Your task to perform on an android device: Search for pizza restaurants on Maps Image 0: 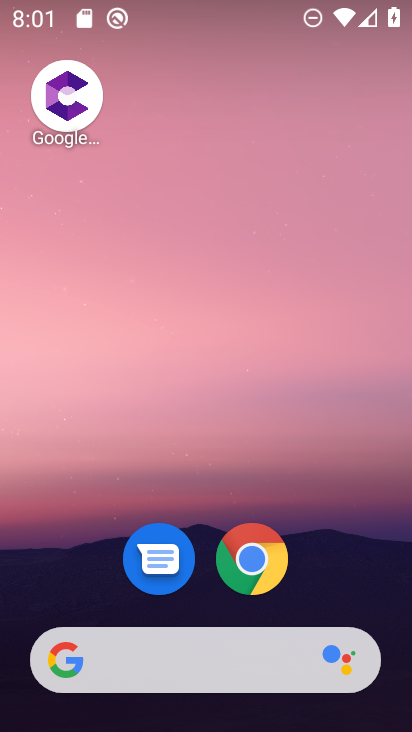
Step 0: drag from (88, 468) to (140, 10)
Your task to perform on an android device: Search for pizza restaurants on Maps Image 1: 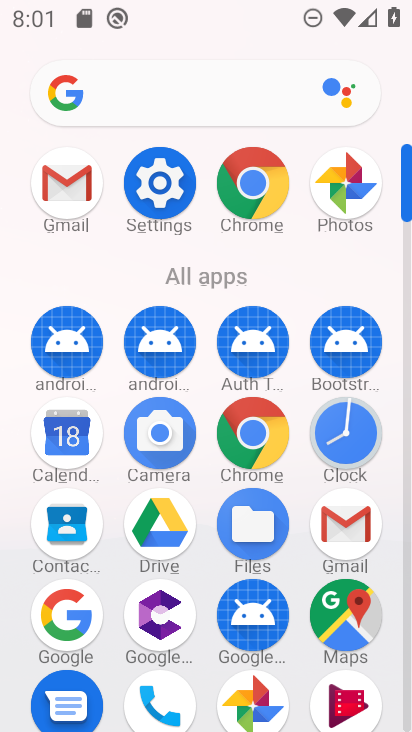
Step 1: click (334, 624)
Your task to perform on an android device: Search for pizza restaurants on Maps Image 2: 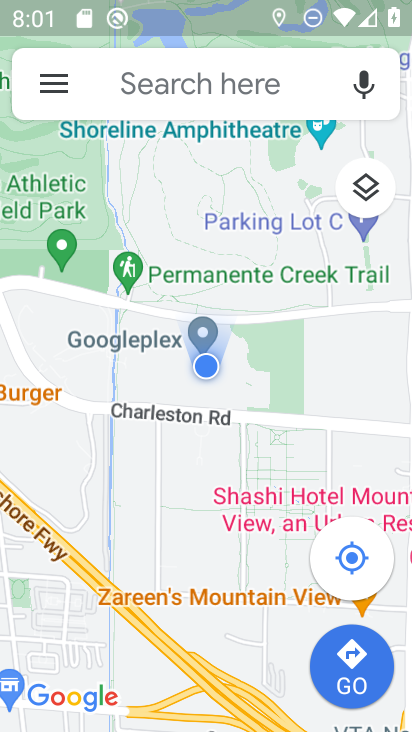
Step 2: click (167, 80)
Your task to perform on an android device: Search for pizza restaurants on Maps Image 3: 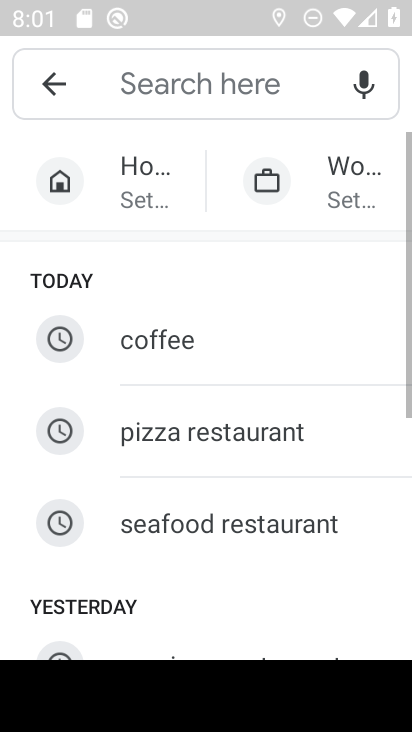
Step 3: click (180, 433)
Your task to perform on an android device: Search for pizza restaurants on Maps Image 4: 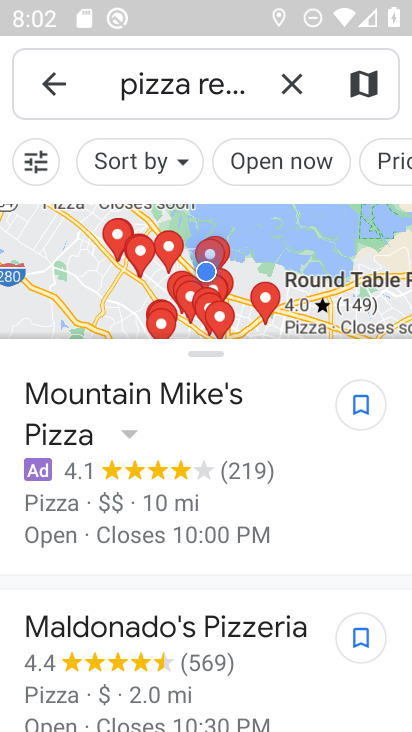
Step 4: task complete